Your task to perform on an android device: turn off javascript in the chrome app Image 0: 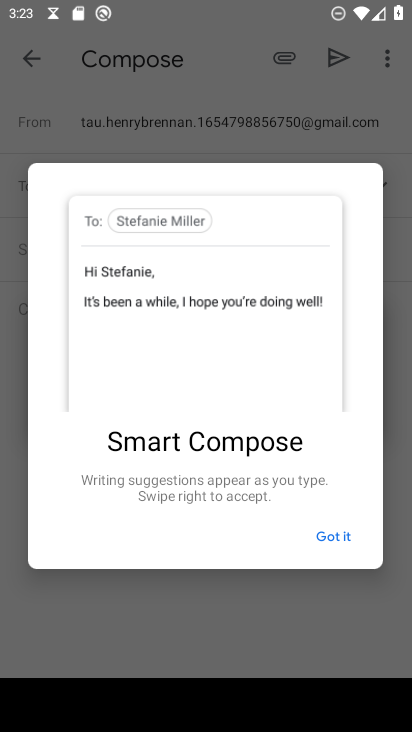
Step 0: press home button
Your task to perform on an android device: turn off javascript in the chrome app Image 1: 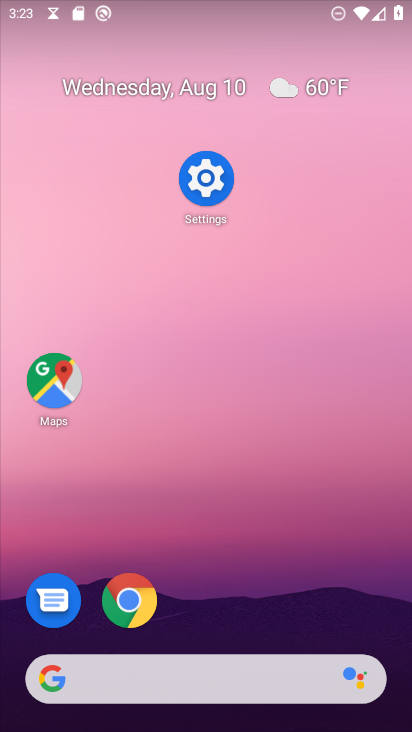
Step 1: click (130, 606)
Your task to perform on an android device: turn off javascript in the chrome app Image 2: 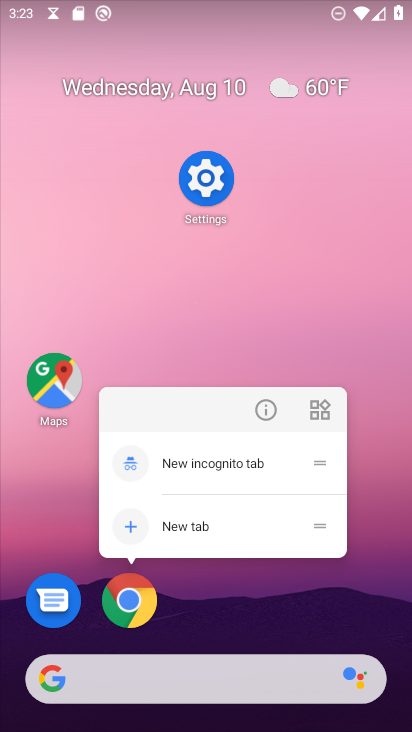
Step 2: click (148, 604)
Your task to perform on an android device: turn off javascript in the chrome app Image 3: 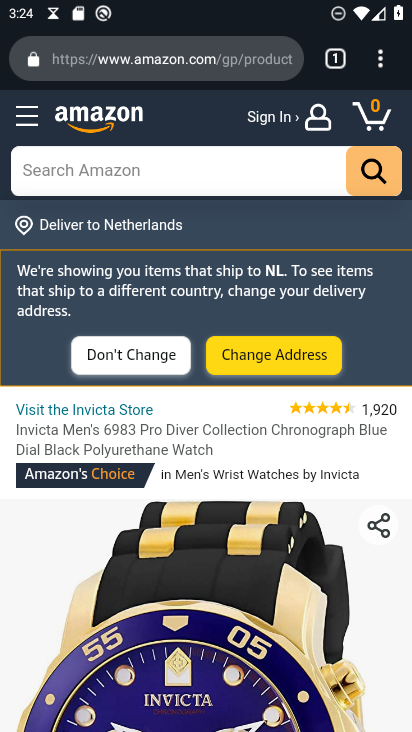
Step 3: drag from (383, 57) to (166, 637)
Your task to perform on an android device: turn off javascript in the chrome app Image 4: 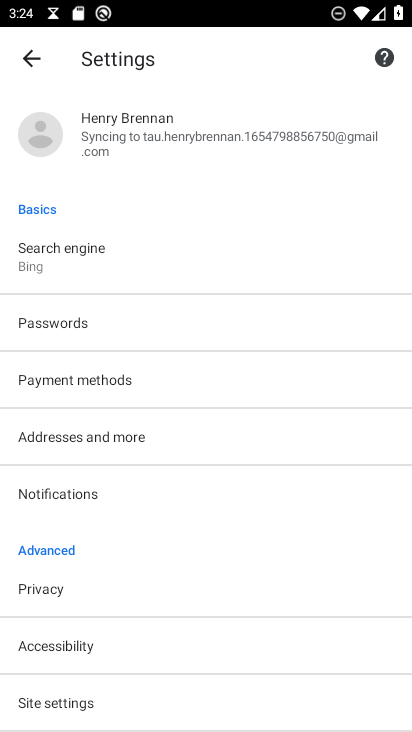
Step 4: click (66, 701)
Your task to perform on an android device: turn off javascript in the chrome app Image 5: 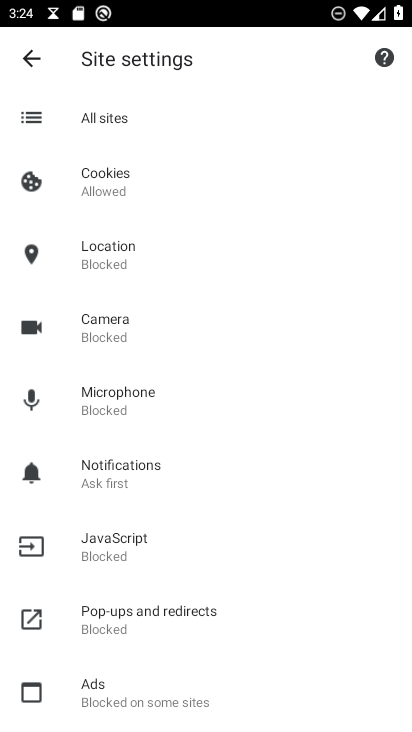
Step 5: click (102, 546)
Your task to perform on an android device: turn off javascript in the chrome app Image 6: 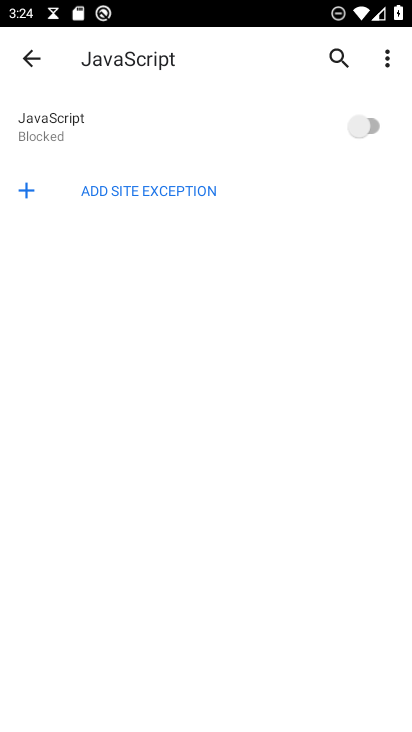
Step 6: task complete